Your task to perform on an android device: Is it going to rain tomorrow? Image 0: 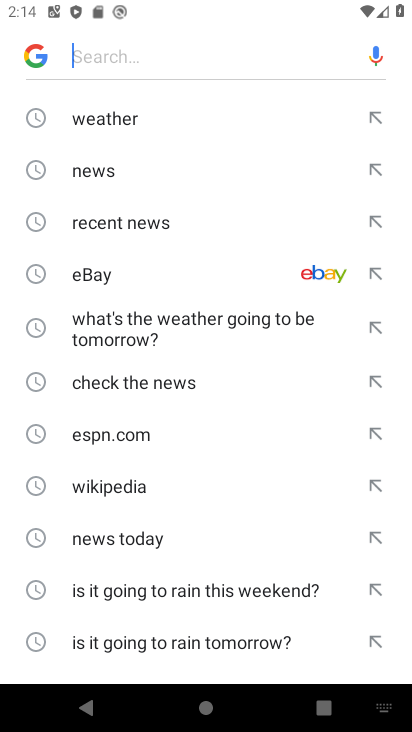
Step 0: click (77, 124)
Your task to perform on an android device: Is it going to rain tomorrow? Image 1: 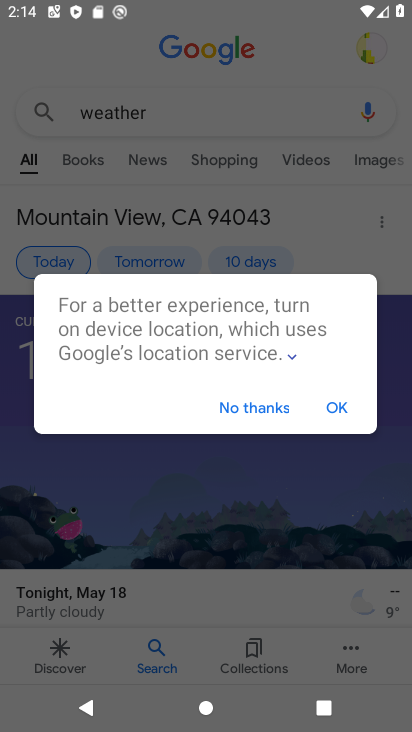
Step 1: click (353, 411)
Your task to perform on an android device: Is it going to rain tomorrow? Image 2: 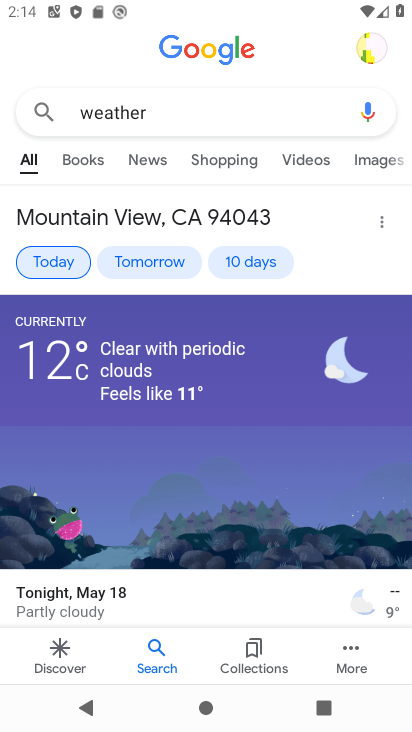
Step 2: drag from (169, 445) to (236, 79)
Your task to perform on an android device: Is it going to rain tomorrow? Image 3: 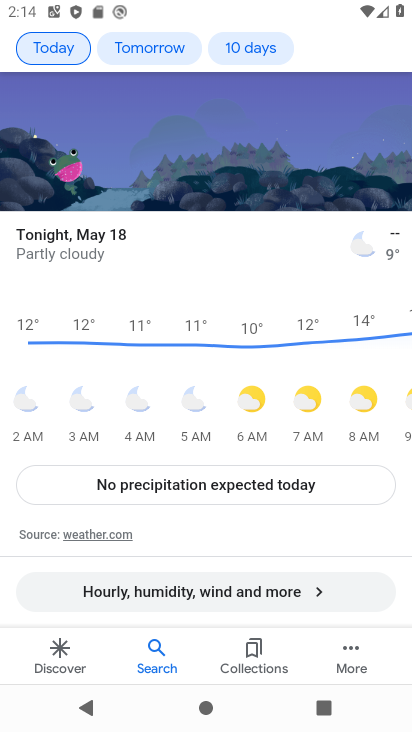
Step 3: drag from (238, 418) to (291, 144)
Your task to perform on an android device: Is it going to rain tomorrow? Image 4: 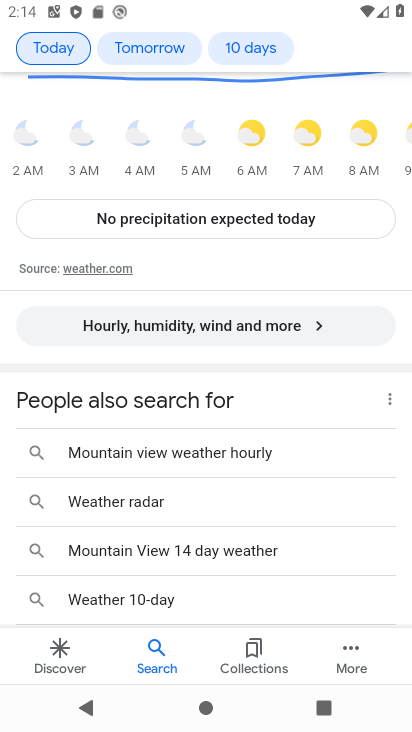
Step 4: press home button
Your task to perform on an android device: Is it going to rain tomorrow? Image 5: 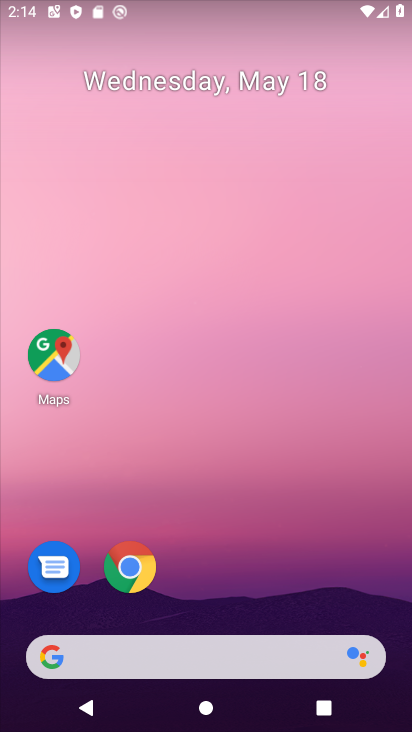
Step 5: click (138, 561)
Your task to perform on an android device: Is it going to rain tomorrow? Image 6: 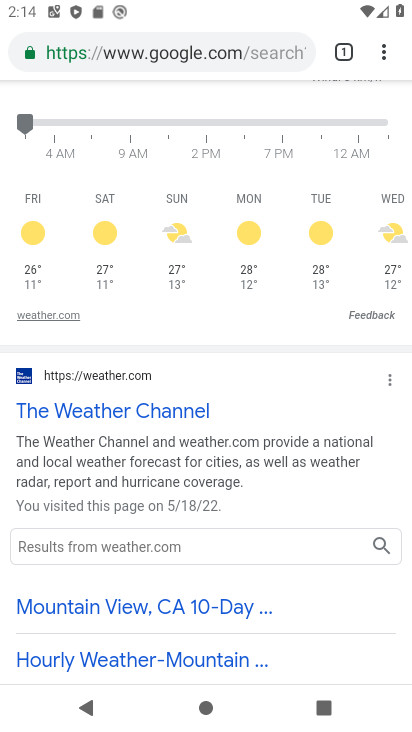
Step 6: click (131, 564)
Your task to perform on an android device: Is it going to rain tomorrow? Image 7: 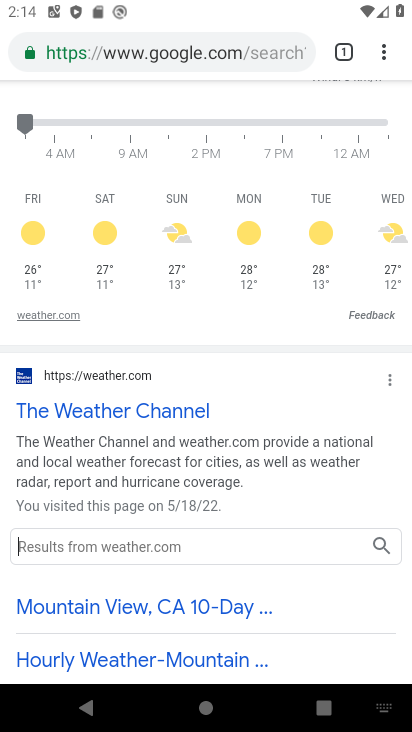
Step 7: drag from (97, 237) to (330, 241)
Your task to perform on an android device: Is it going to rain tomorrow? Image 8: 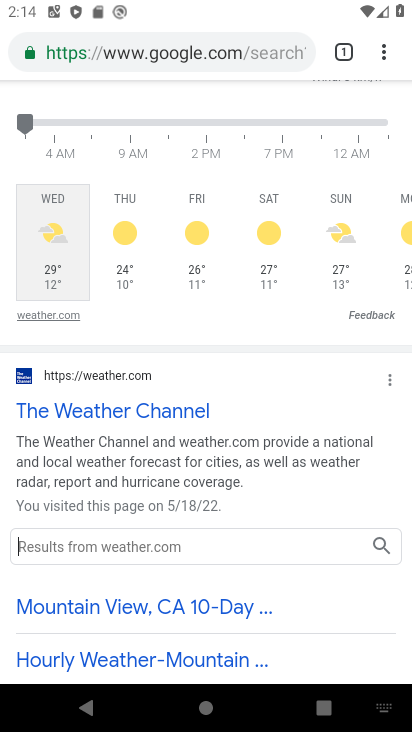
Step 8: drag from (221, 148) to (221, 330)
Your task to perform on an android device: Is it going to rain tomorrow? Image 9: 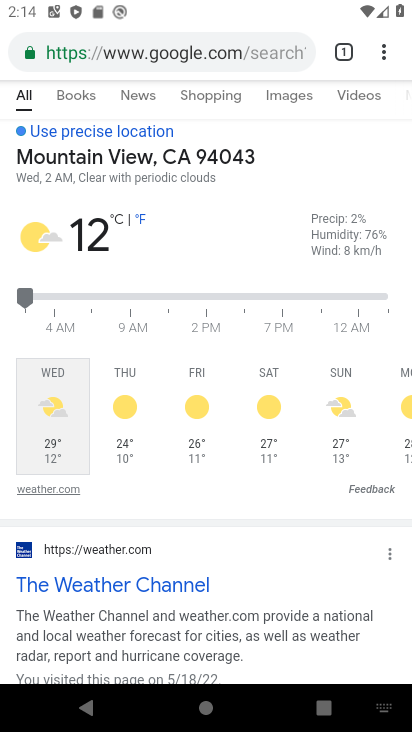
Step 9: click (116, 407)
Your task to perform on an android device: Is it going to rain tomorrow? Image 10: 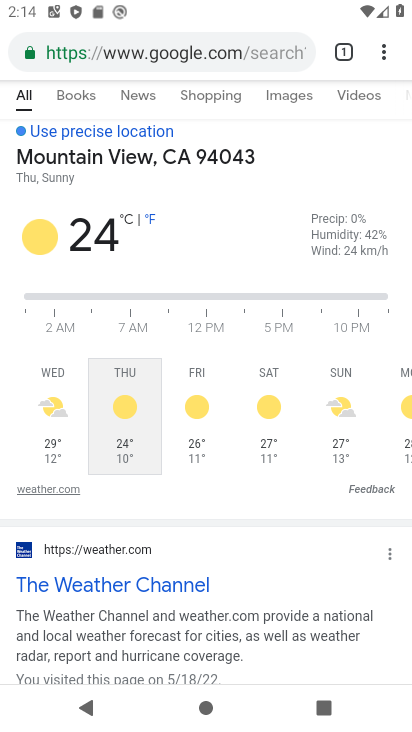
Step 10: task complete